Your task to perform on an android device: Open the web browser Image 0: 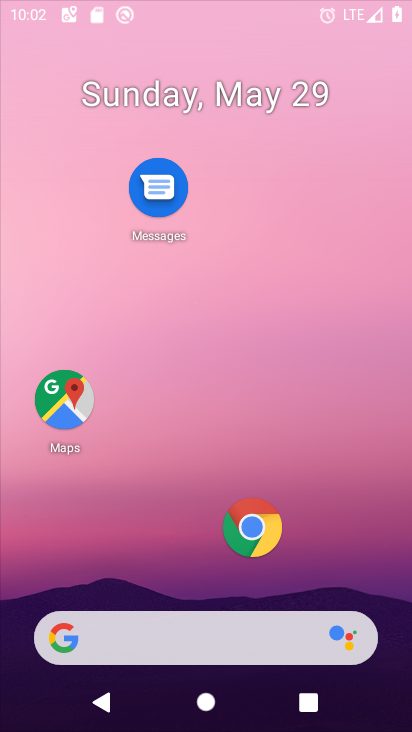
Step 0: press home button
Your task to perform on an android device: Open the web browser Image 1: 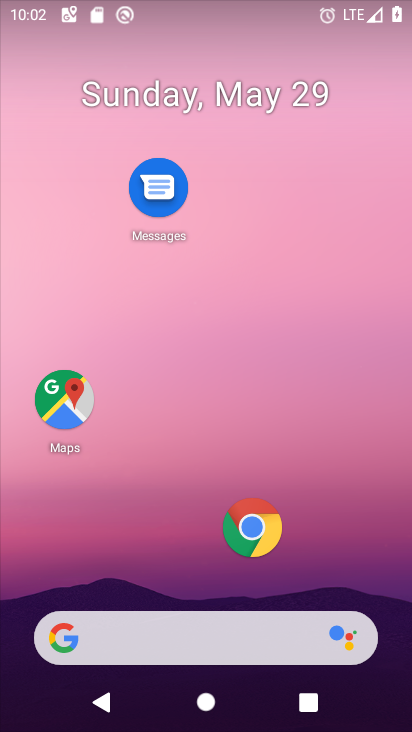
Step 1: drag from (210, 579) to (240, 50)
Your task to perform on an android device: Open the web browser Image 2: 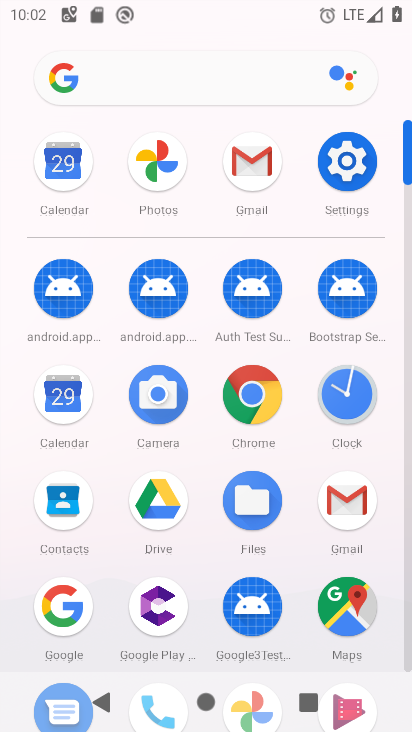
Step 2: click (246, 388)
Your task to perform on an android device: Open the web browser Image 3: 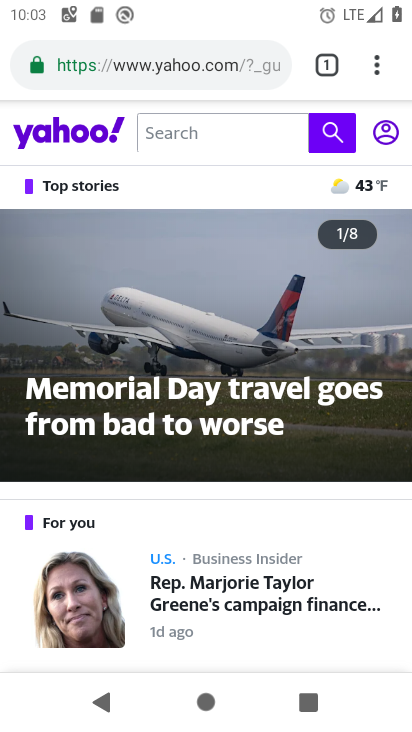
Step 3: click (331, 62)
Your task to perform on an android device: Open the web browser Image 4: 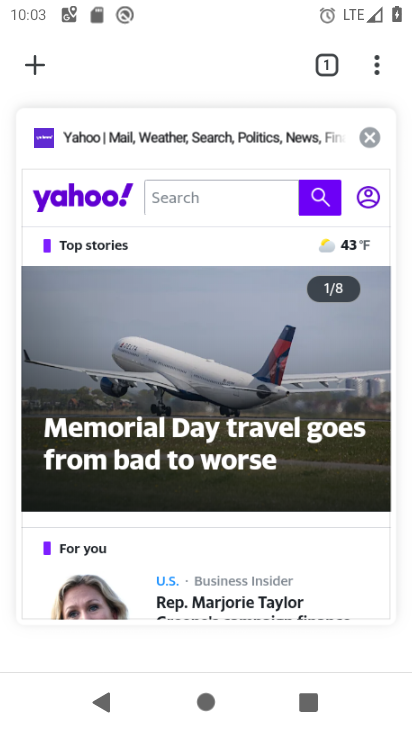
Step 4: click (368, 130)
Your task to perform on an android device: Open the web browser Image 5: 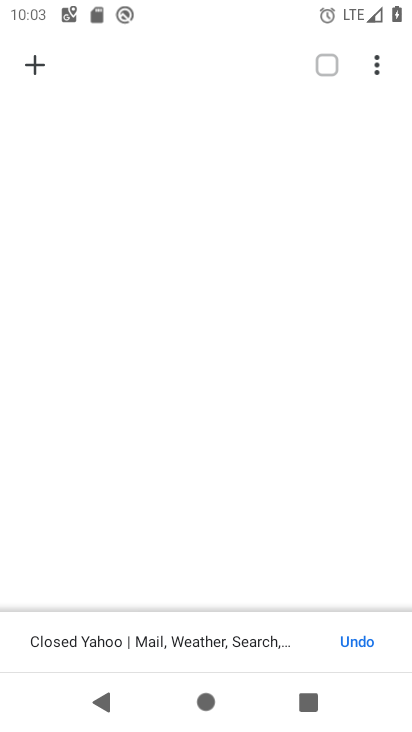
Step 5: click (41, 68)
Your task to perform on an android device: Open the web browser Image 6: 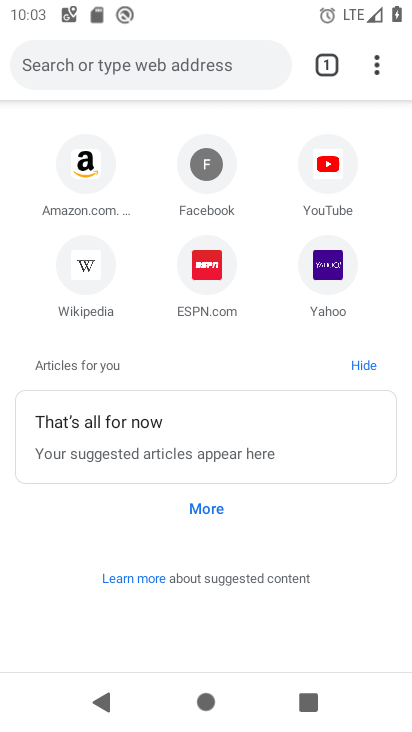
Step 6: task complete